Your task to perform on an android device: turn off improve location accuracy Image 0: 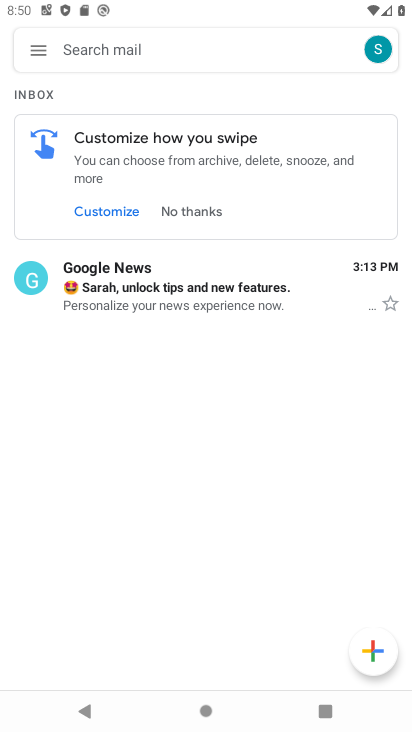
Step 0: press home button
Your task to perform on an android device: turn off improve location accuracy Image 1: 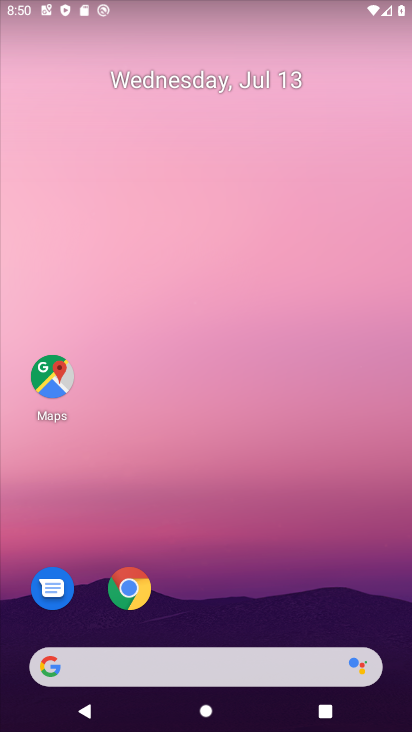
Step 1: drag from (209, 618) to (141, 248)
Your task to perform on an android device: turn off improve location accuracy Image 2: 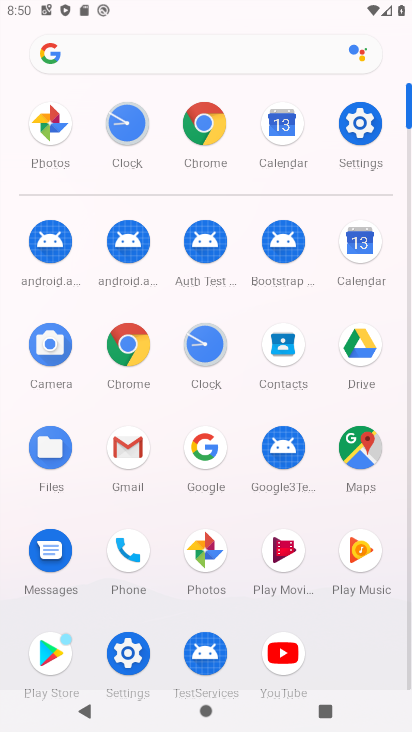
Step 2: click (194, 85)
Your task to perform on an android device: turn off improve location accuracy Image 3: 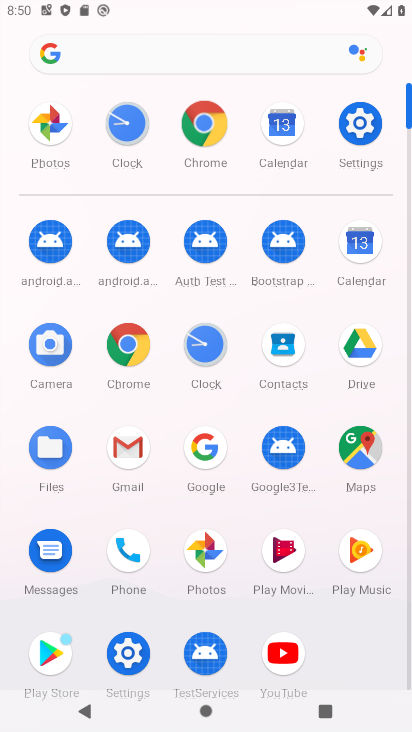
Step 3: click (188, 125)
Your task to perform on an android device: turn off improve location accuracy Image 4: 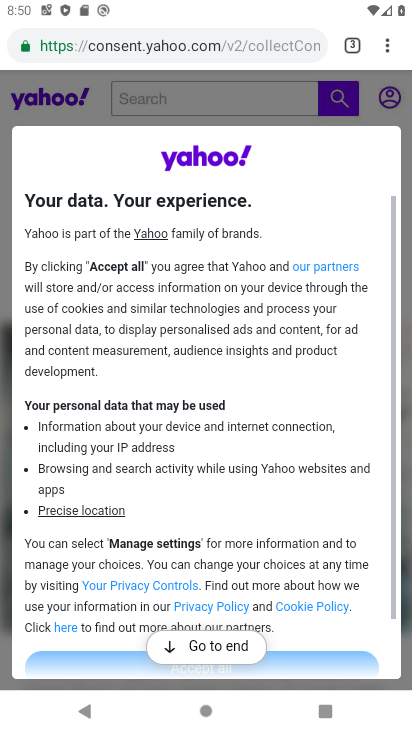
Step 4: click (398, 41)
Your task to perform on an android device: turn off improve location accuracy Image 5: 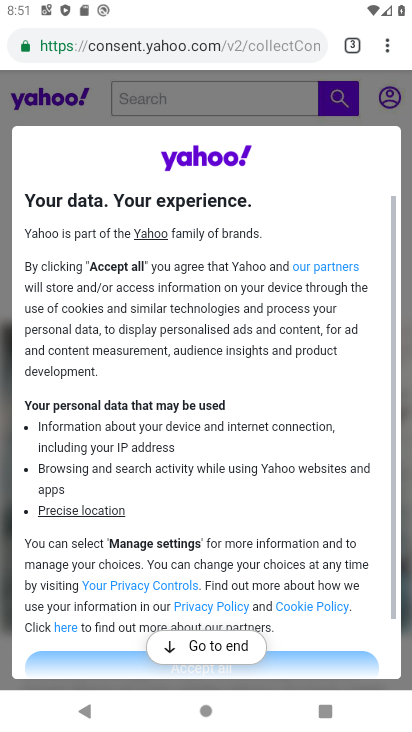
Step 5: click (406, 35)
Your task to perform on an android device: turn off improve location accuracy Image 6: 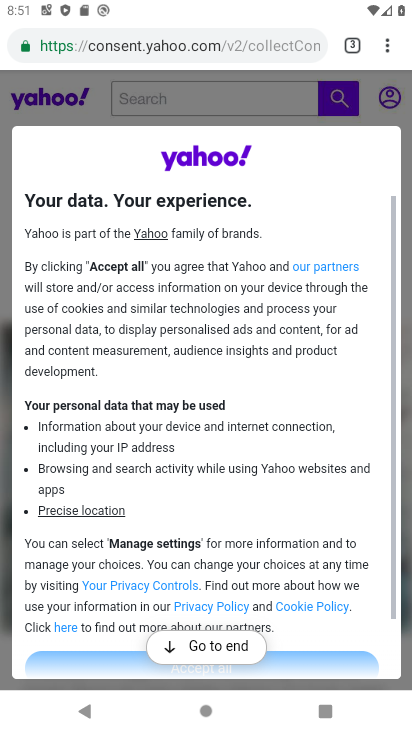
Step 6: click (389, 42)
Your task to perform on an android device: turn off improve location accuracy Image 7: 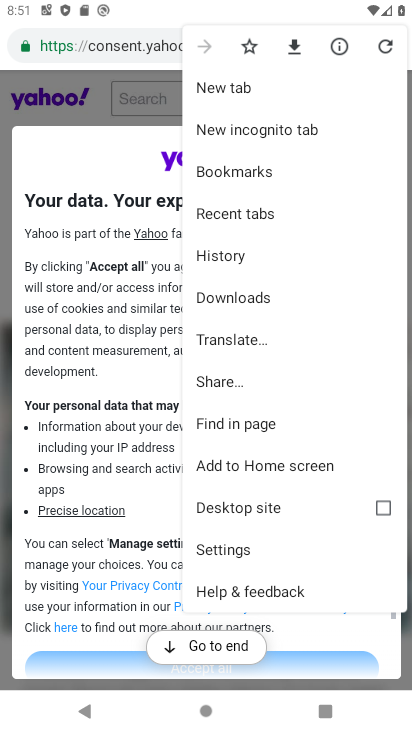
Step 7: click (247, 549)
Your task to perform on an android device: turn off improve location accuracy Image 8: 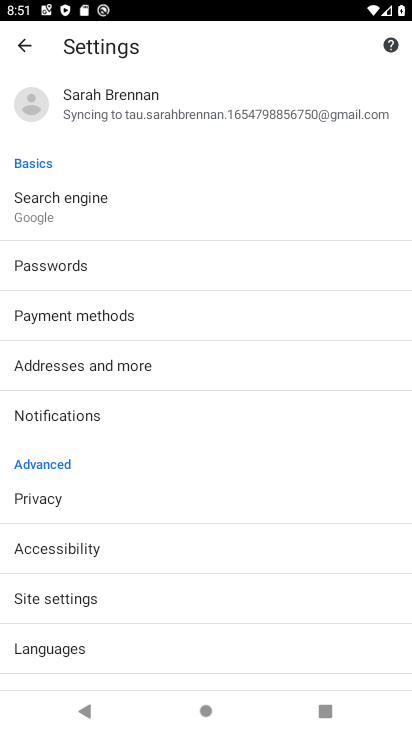
Step 8: drag from (174, 579) to (228, 302)
Your task to perform on an android device: turn off improve location accuracy Image 9: 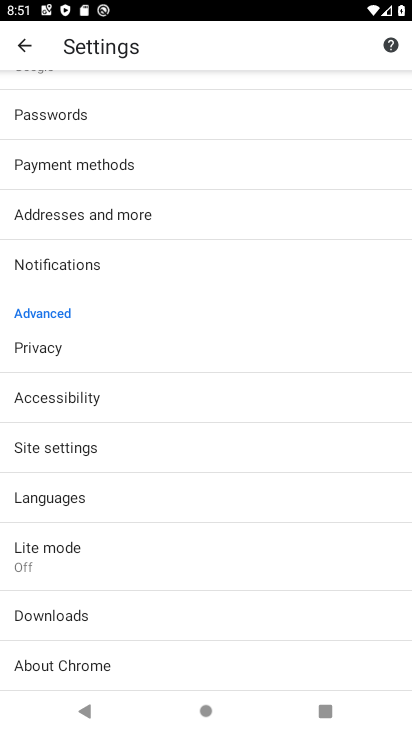
Step 9: click (119, 438)
Your task to perform on an android device: turn off improve location accuracy Image 10: 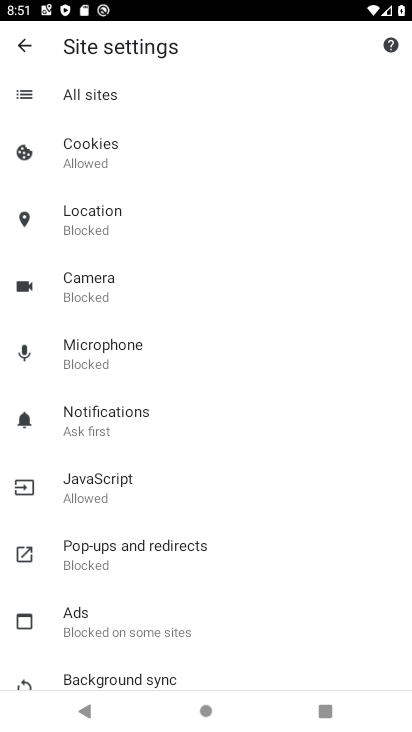
Step 10: click (96, 204)
Your task to perform on an android device: turn off improve location accuracy Image 11: 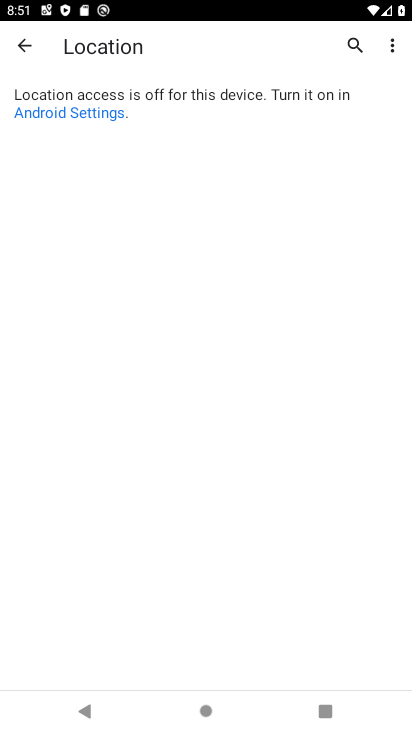
Step 11: click (26, 48)
Your task to perform on an android device: turn off improve location accuracy Image 12: 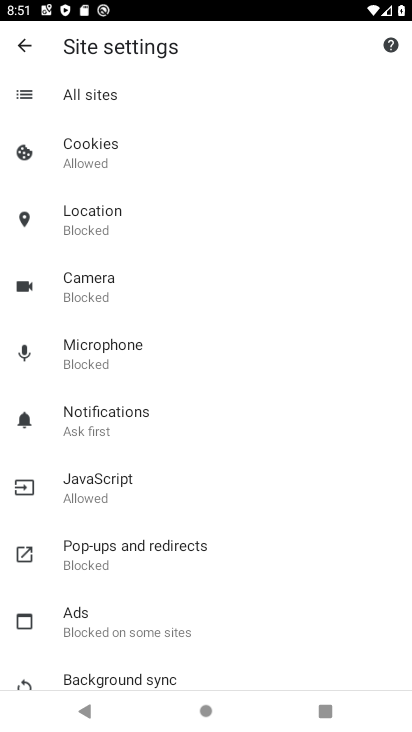
Step 12: click (148, 197)
Your task to perform on an android device: turn off improve location accuracy Image 13: 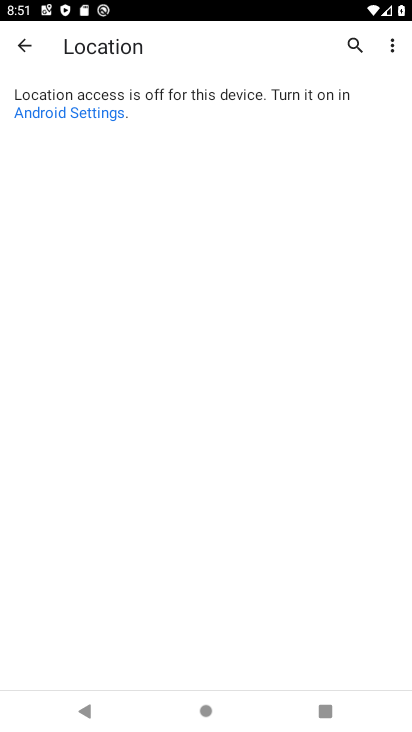
Step 13: click (34, 39)
Your task to perform on an android device: turn off improve location accuracy Image 14: 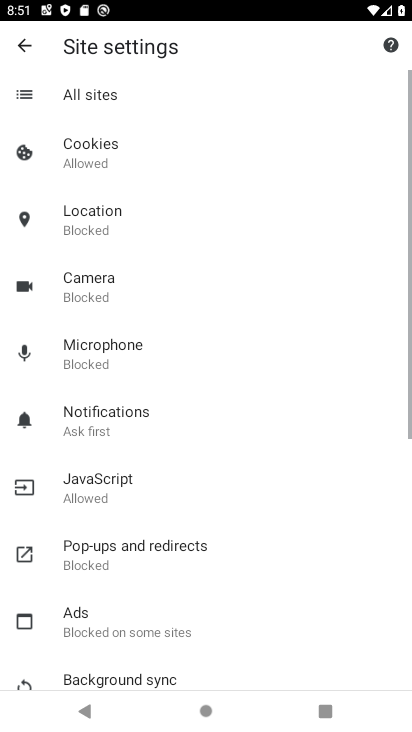
Step 14: click (34, 39)
Your task to perform on an android device: turn off improve location accuracy Image 15: 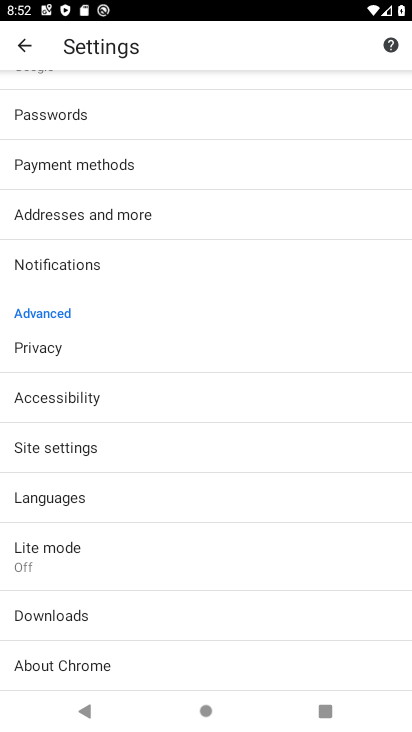
Step 15: press home button
Your task to perform on an android device: turn off improve location accuracy Image 16: 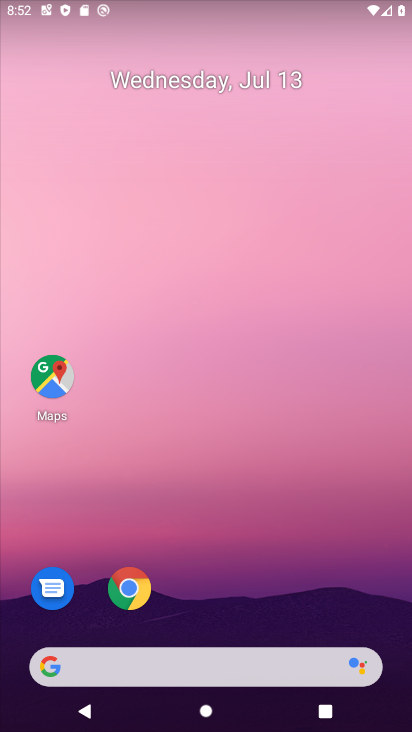
Step 16: drag from (273, 572) to (285, 249)
Your task to perform on an android device: turn off improve location accuracy Image 17: 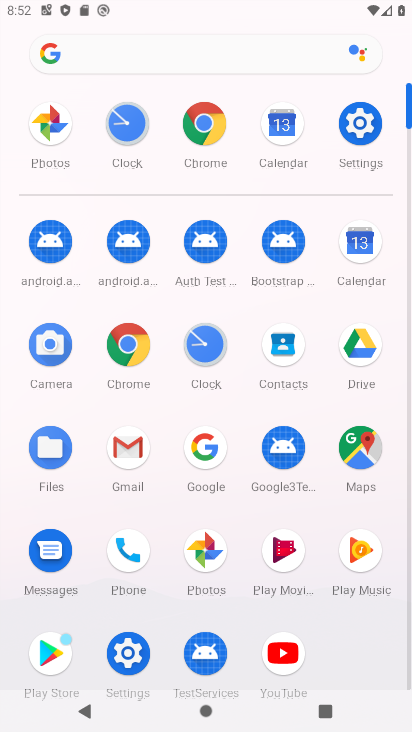
Step 17: click (359, 128)
Your task to perform on an android device: turn off improve location accuracy Image 18: 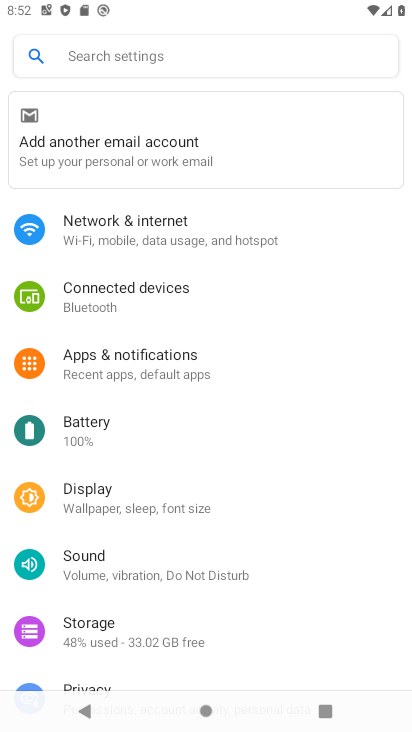
Step 18: drag from (173, 569) to (191, 252)
Your task to perform on an android device: turn off improve location accuracy Image 19: 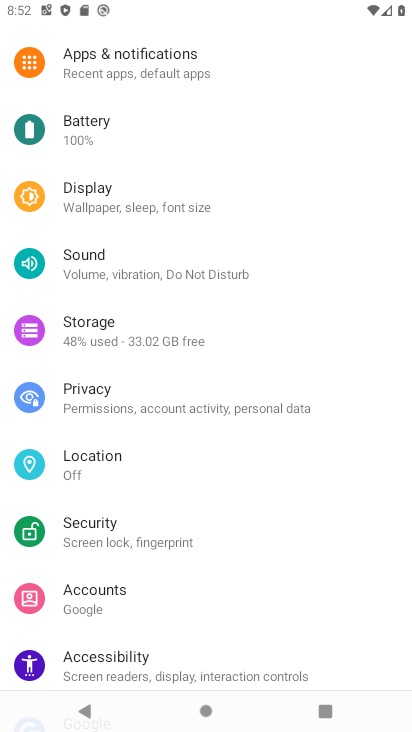
Step 19: click (142, 455)
Your task to perform on an android device: turn off improve location accuracy Image 20: 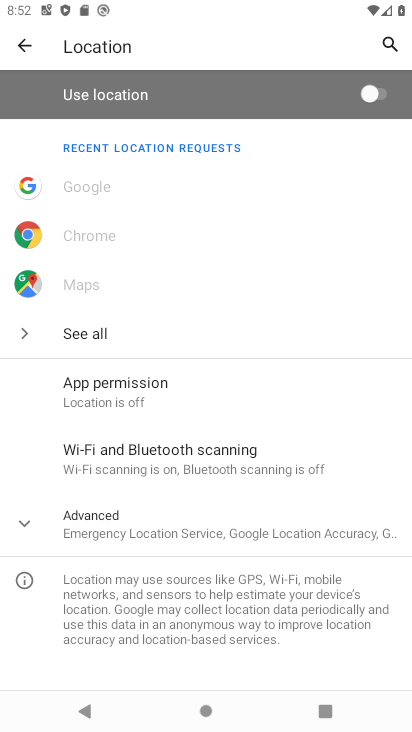
Step 20: click (239, 523)
Your task to perform on an android device: turn off improve location accuracy Image 21: 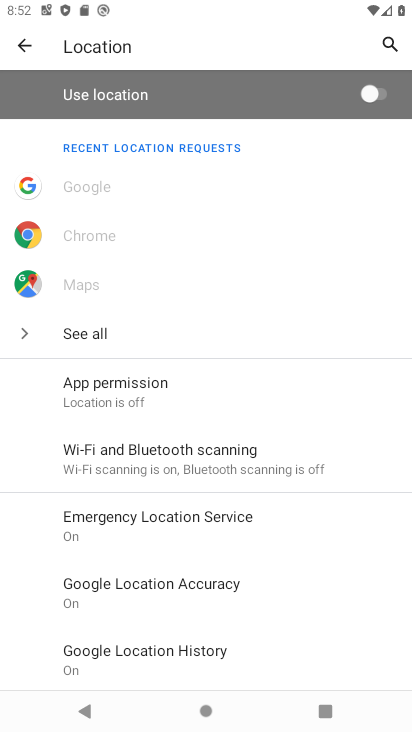
Step 21: drag from (200, 583) to (238, 179)
Your task to perform on an android device: turn off improve location accuracy Image 22: 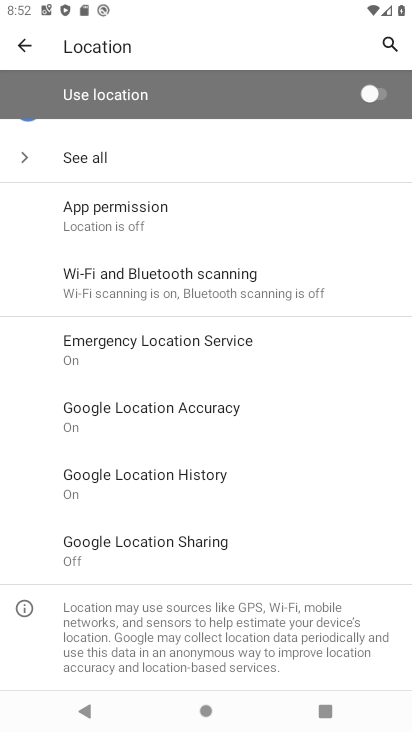
Step 22: click (203, 396)
Your task to perform on an android device: turn off improve location accuracy Image 23: 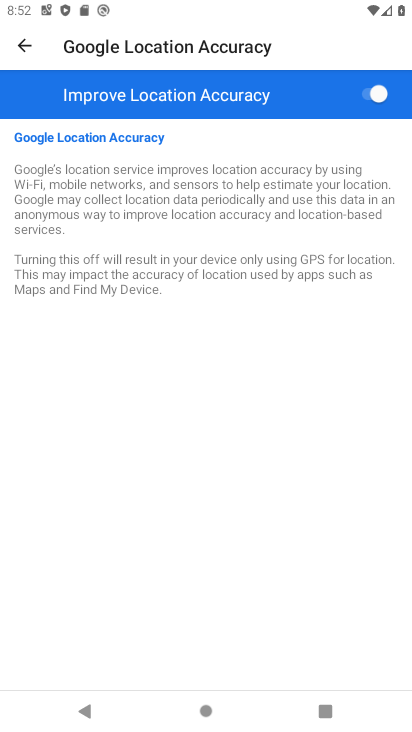
Step 23: click (362, 89)
Your task to perform on an android device: turn off improve location accuracy Image 24: 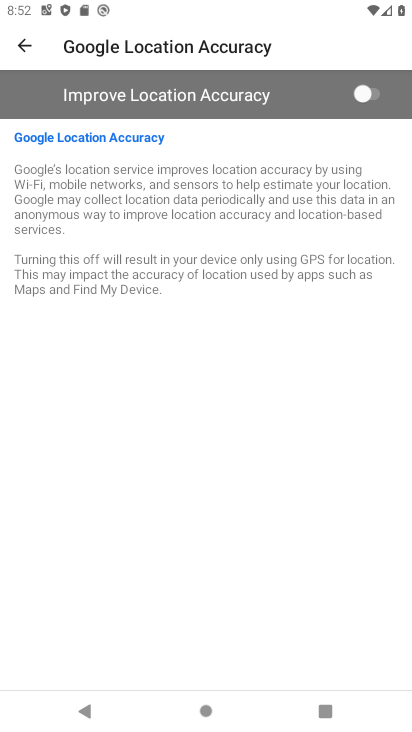
Step 24: task complete